Your task to perform on an android device: see tabs open on other devices in the chrome app Image 0: 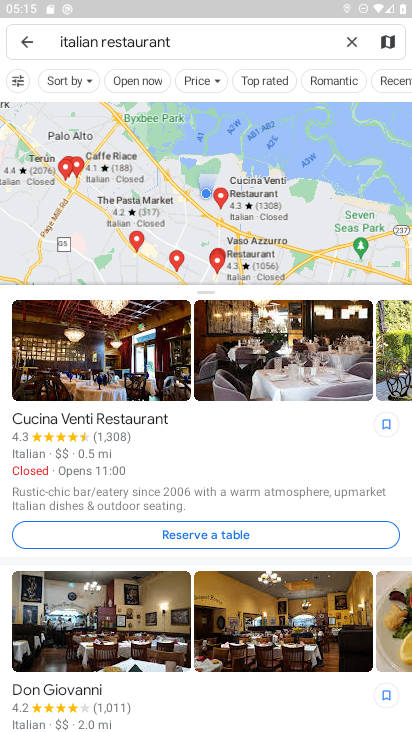
Step 0: press home button
Your task to perform on an android device: see tabs open on other devices in the chrome app Image 1: 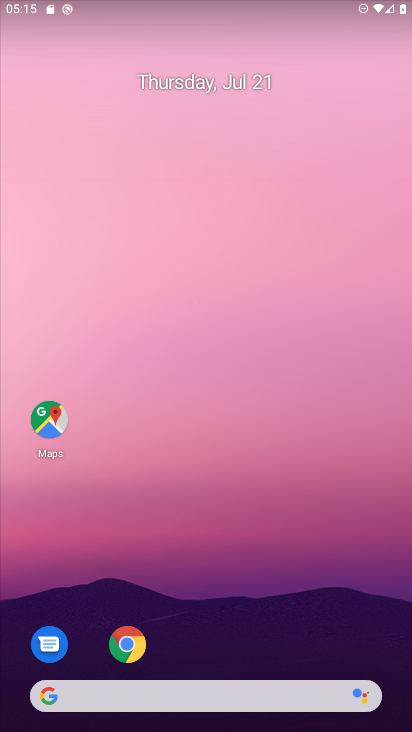
Step 1: click (131, 647)
Your task to perform on an android device: see tabs open on other devices in the chrome app Image 2: 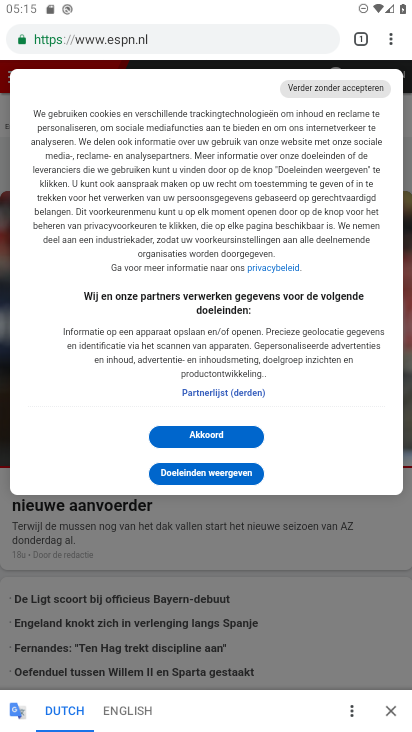
Step 2: click (393, 42)
Your task to perform on an android device: see tabs open on other devices in the chrome app Image 3: 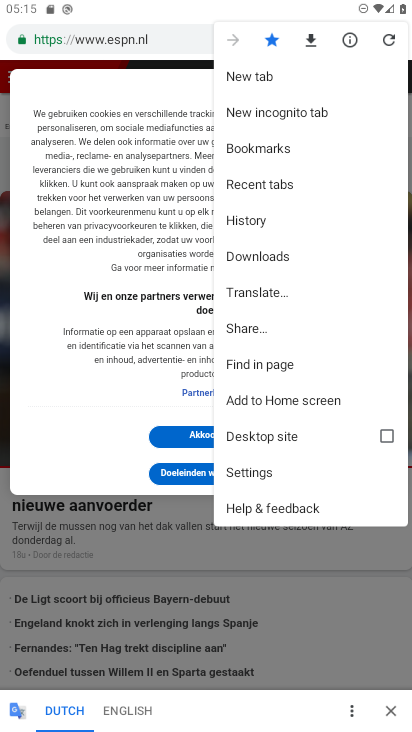
Step 3: click (268, 187)
Your task to perform on an android device: see tabs open on other devices in the chrome app Image 4: 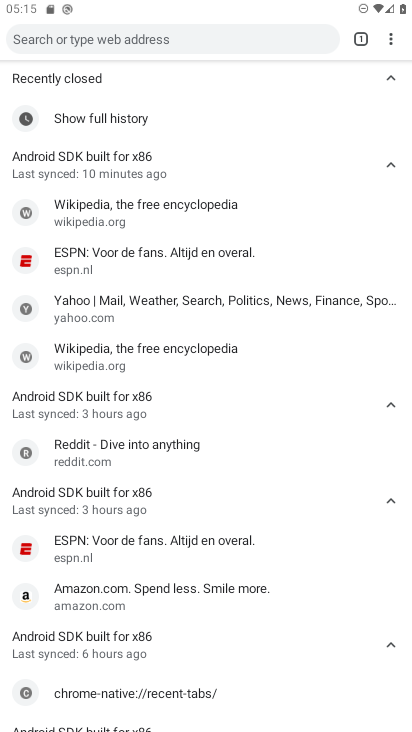
Step 4: task complete